Your task to perform on an android device: Show me popular games on the Play Store Image 0: 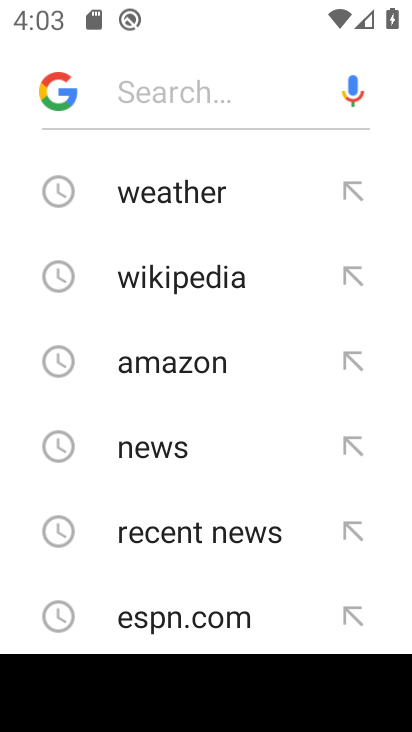
Step 0: press back button
Your task to perform on an android device: Show me popular games on the Play Store Image 1: 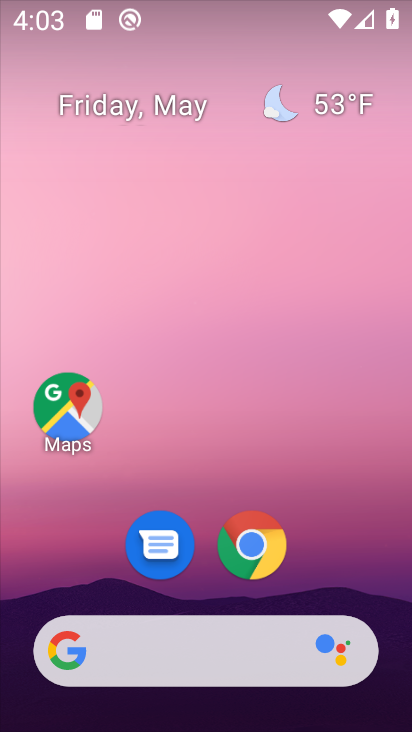
Step 1: drag from (372, 562) to (368, 179)
Your task to perform on an android device: Show me popular games on the Play Store Image 2: 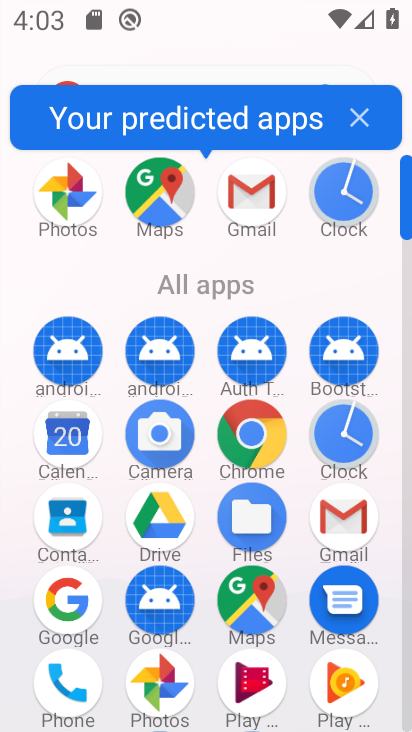
Step 2: drag from (391, 639) to (377, 382)
Your task to perform on an android device: Show me popular games on the Play Store Image 3: 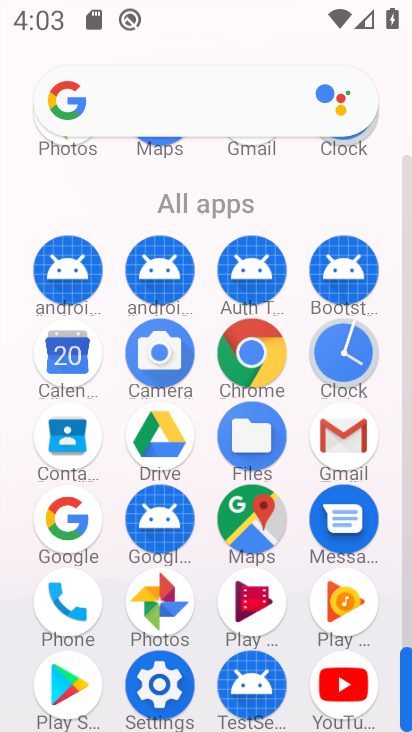
Step 3: click (75, 700)
Your task to perform on an android device: Show me popular games on the Play Store Image 4: 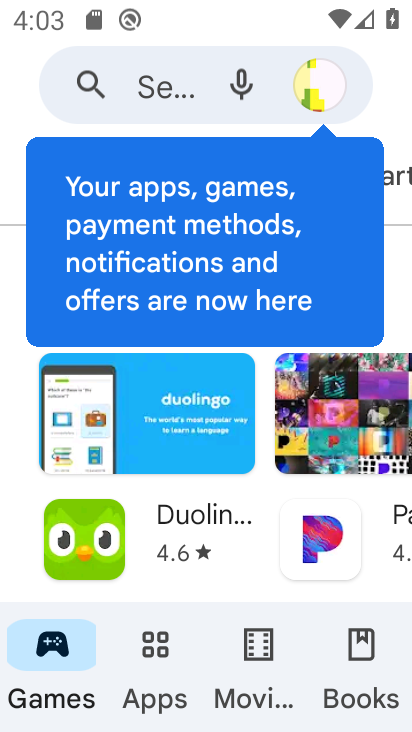
Step 4: task complete